Your task to perform on an android device: choose inbox layout in the gmail app Image 0: 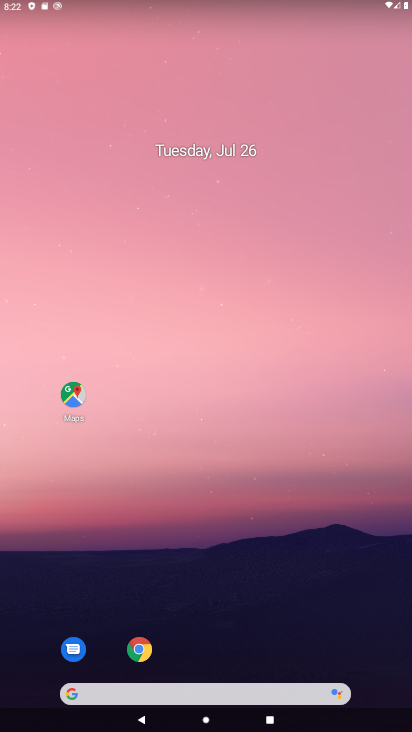
Step 0: drag from (180, 619) to (195, 143)
Your task to perform on an android device: choose inbox layout in the gmail app Image 1: 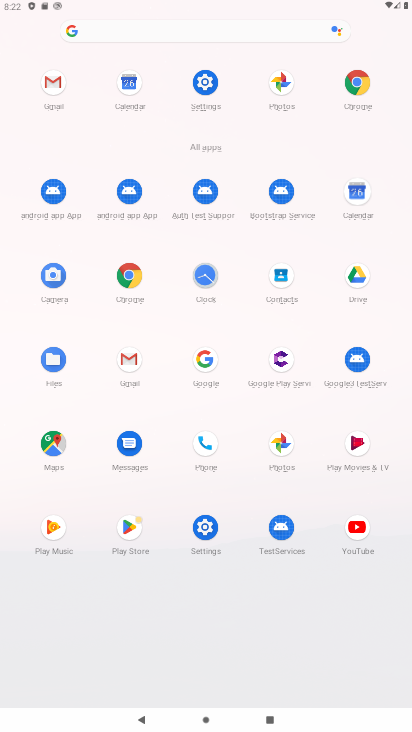
Step 1: click (135, 362)
Your task to perform on an android device: choose inbox layout in the gmail app Image 2: 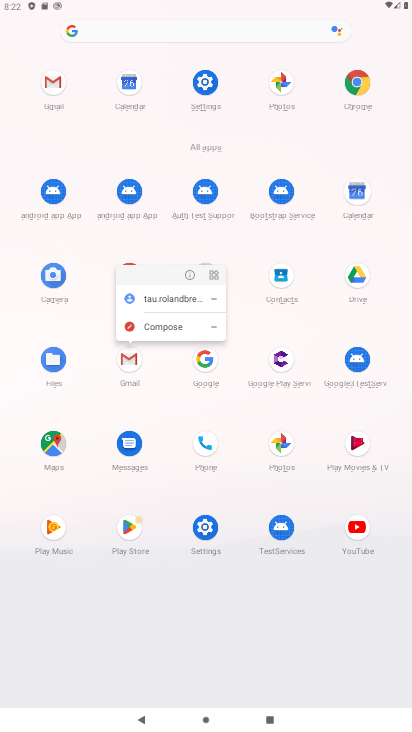
Step 2: click (190, 276)
Your task to perform on an android device: choose inbox layout in the gmail app Image 3: 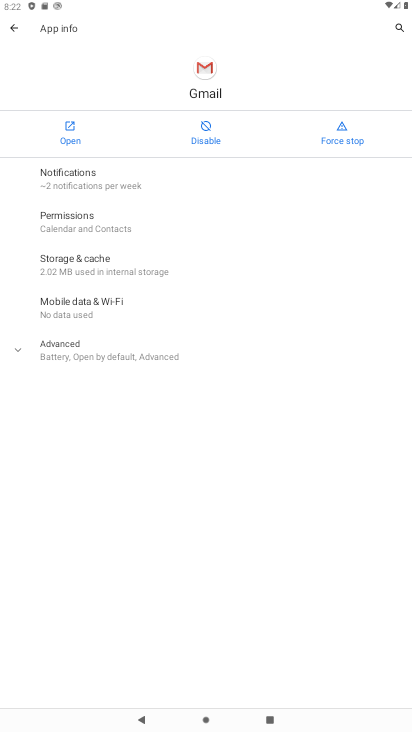
Step 3: click (77, 137)
Your task to perform on an android device: choose inbox layout in the gmail app Image 4: 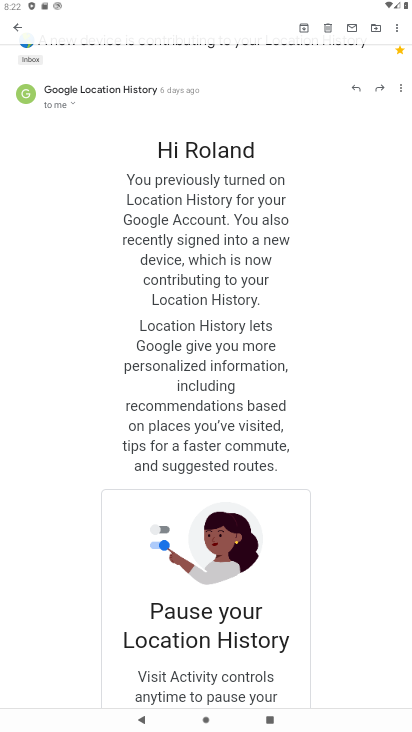
Step 4: click (11, 28)
Your task to perform on an android device: choose inbox layout in the gmail app Image 5: 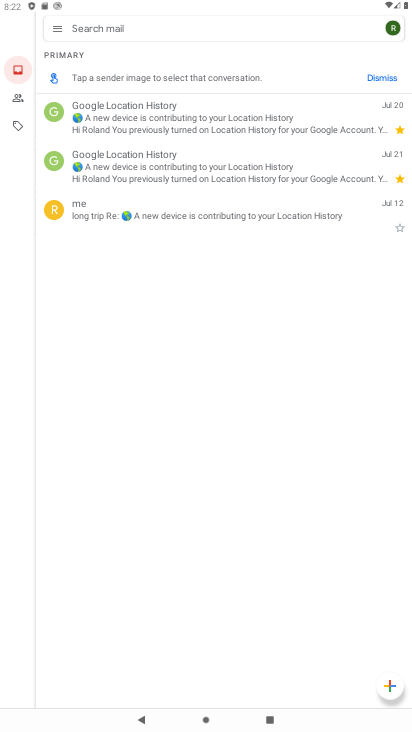
Step 5: drag from (163, 497) to (163, 281)
Your task to perform on an android device: choose inbox layout in the gmail app Image 6: 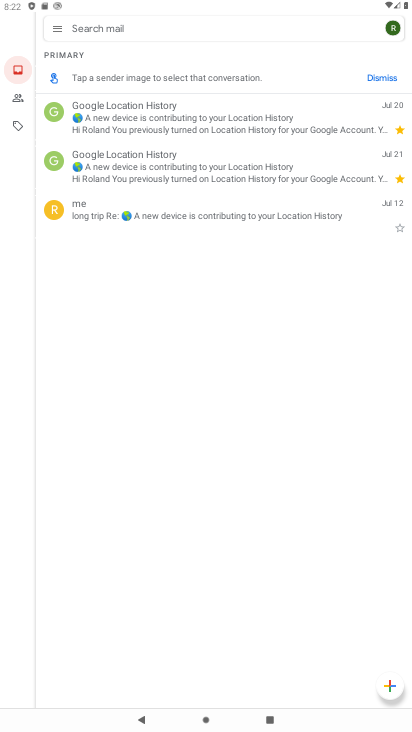
Step 6: click (54, 26)
Your task to perform on an android device: choose inbox layout in the gmail app Image 7: 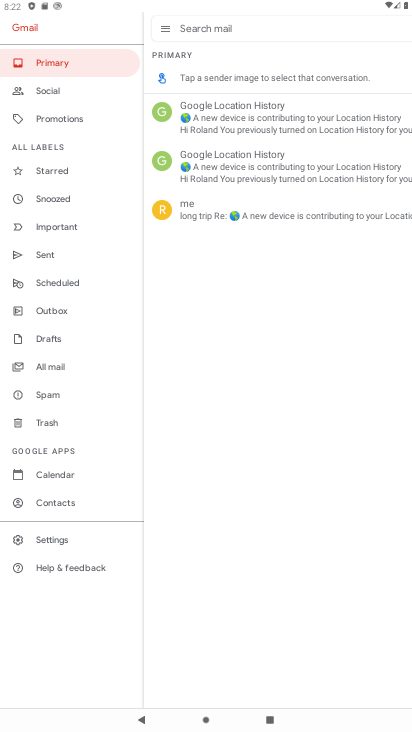
Step 7: click (80, 70)
Your task to perform on an android device: choose inbox layout in the gmail app Image 8: 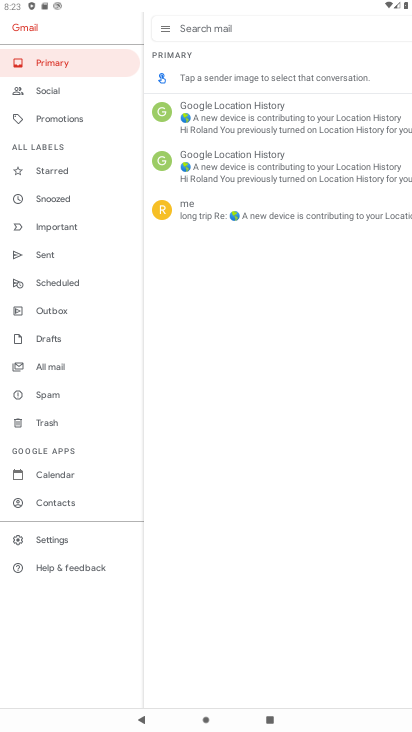
Step 8: task complete